Your task to perform on an android device: check google app version Image 0: 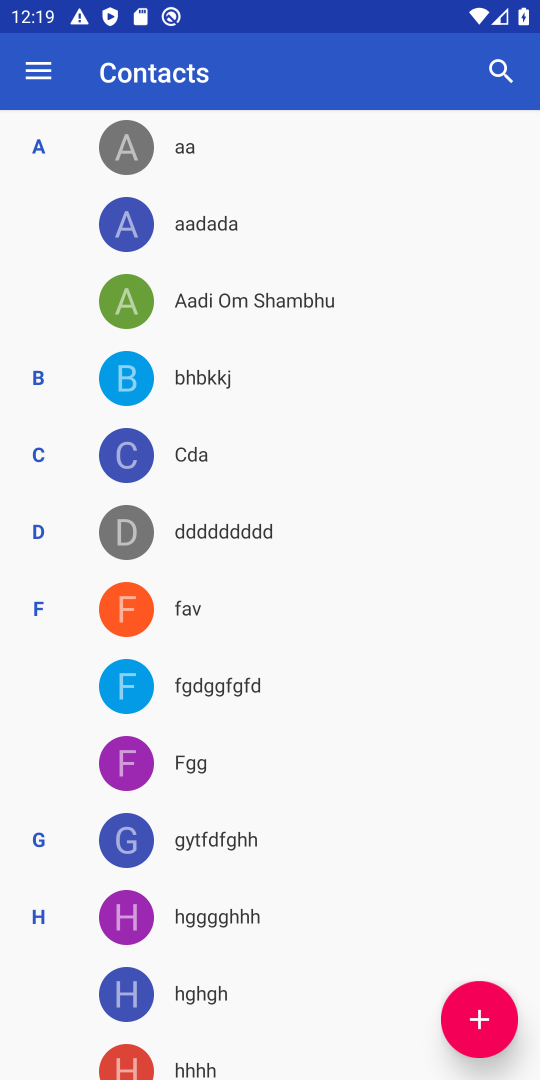
Step 0: press home button
Your task to perform on an android device: check google app version Image 1: 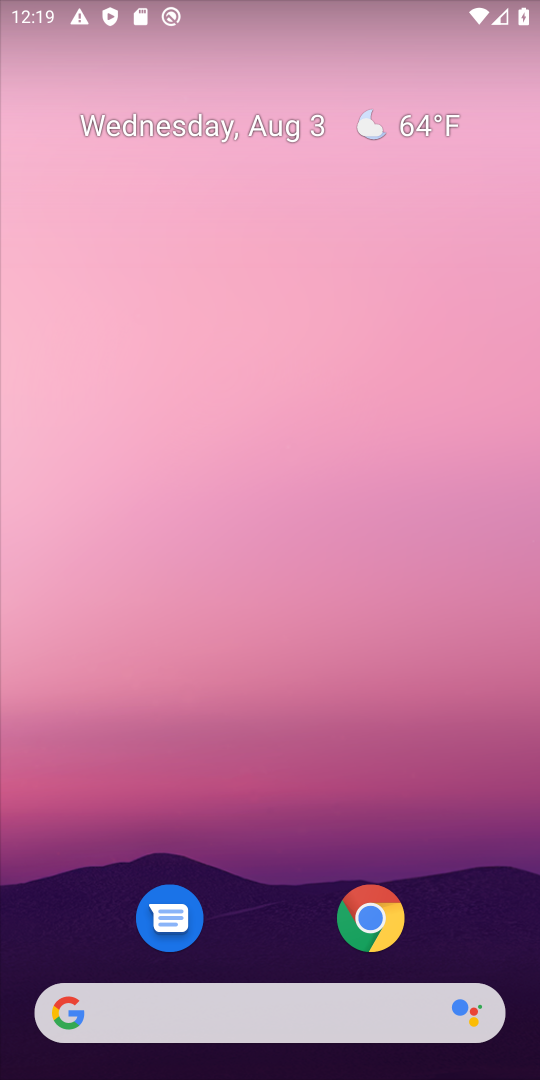
Step 1: click (260, 1028)
Your task to perform on an android device: check google app version Image 2: 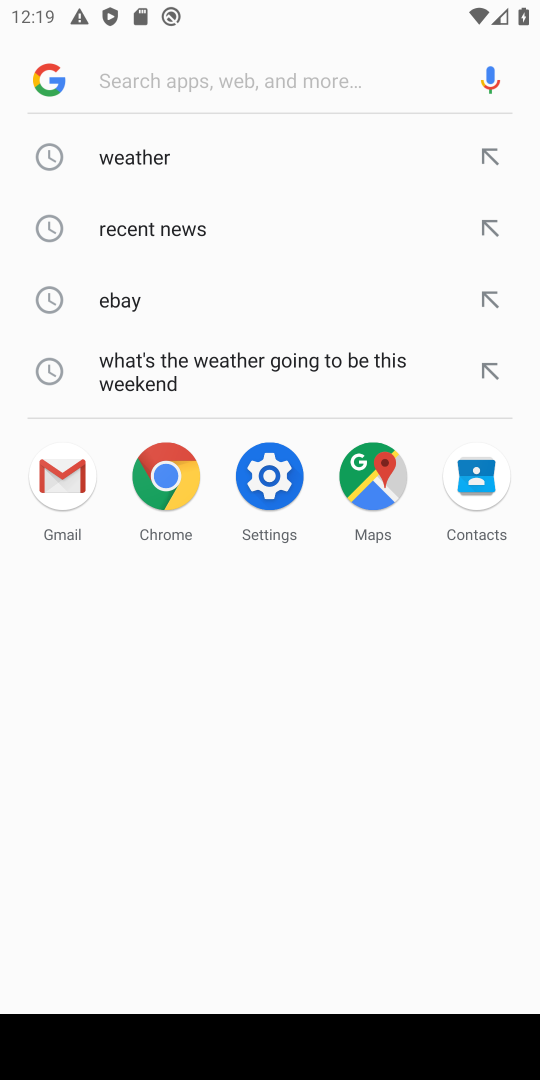
Step 2: click (45, 75)
Your task to perform on an android device: check google app version Image 3: 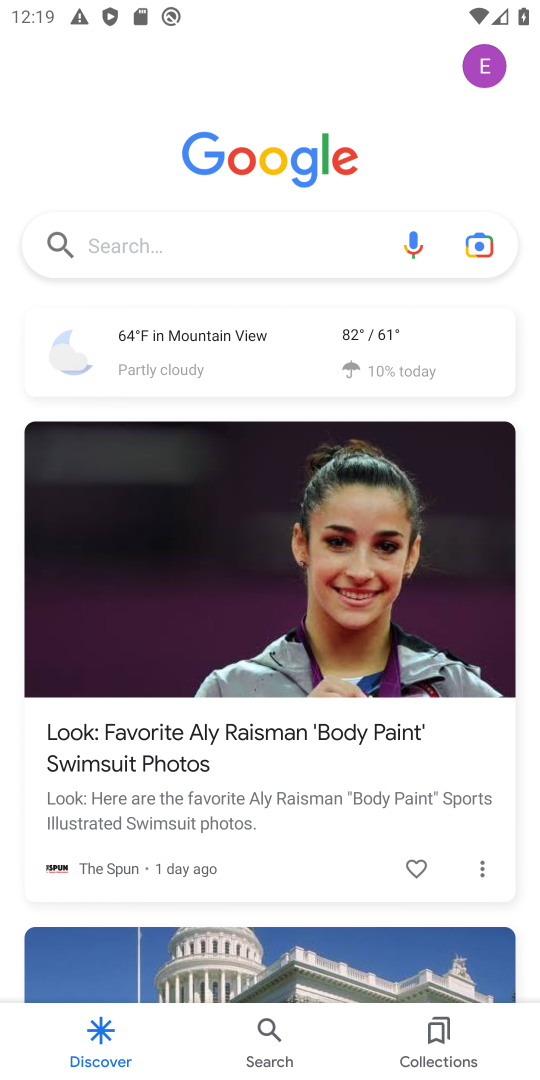
Step 3: click (495, 60)
Your task to perform on an android device: check google app version Image 4: 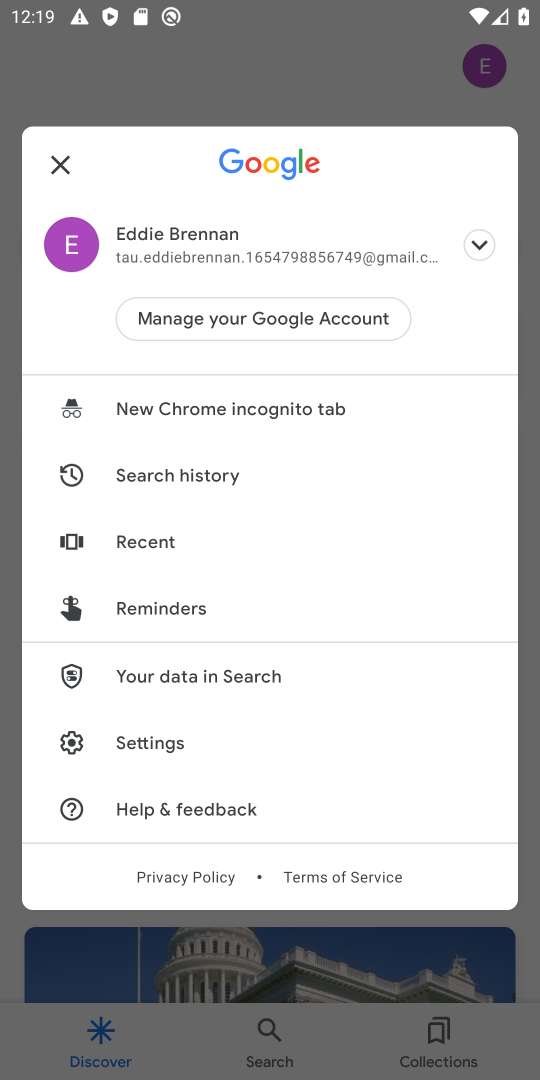
Step 4: click (126, 739)
Your task to perform on an android device: check google app version Image 5: 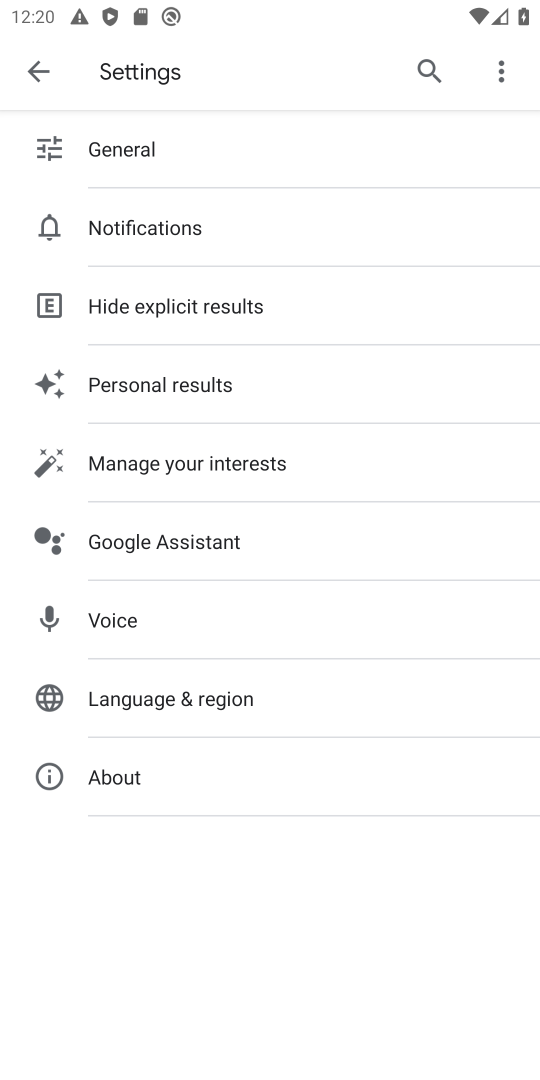
Step 5: click (112, 775)
Your task to perform on an android device: check google app version Image 6: 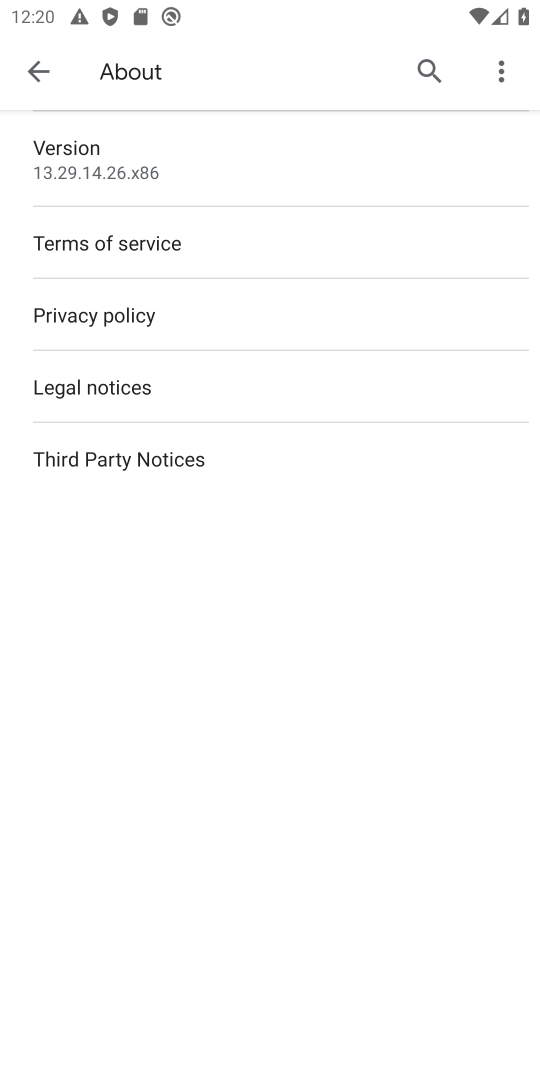
Step 6: task complete